Your task to perform on an android device: toggle notification dots Image 0: 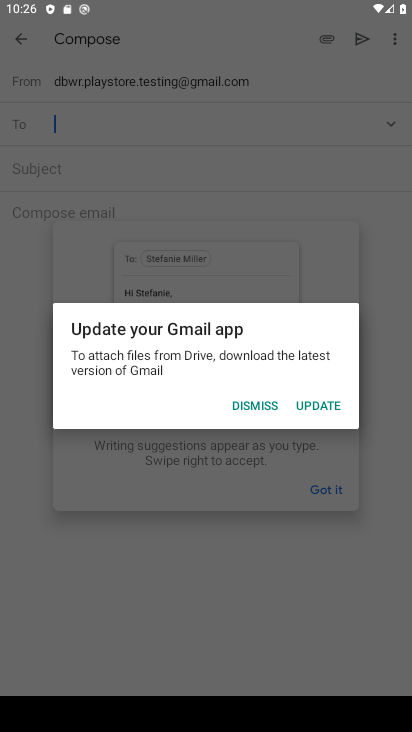
Step 0: press home button
Your task to perform on an android device: toggle notification dots Image 1: 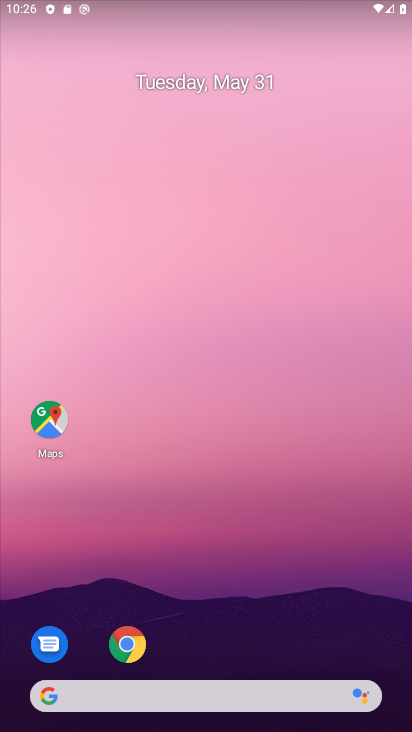
Step 1: drag from (242, 642) to (271, 87)
Your task to perform on an android device: toggle notification dots Image 2: 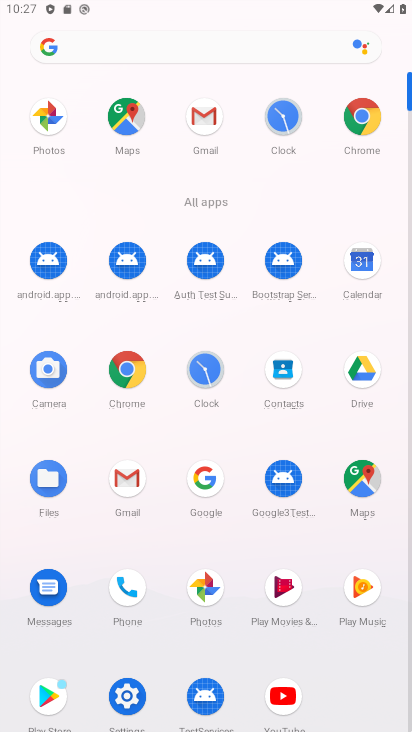
Step 2: click (129, 701)
Your task to perform on an android device: toggle notification dots Image 3: 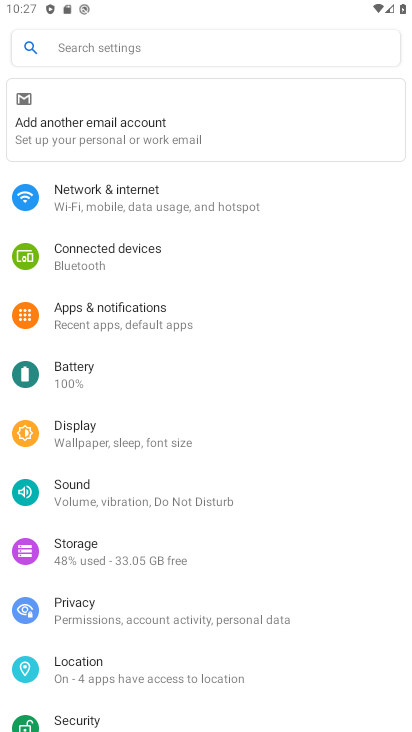
Step 3: click (145, 673)
Your task to perform on an android device: toggle notification dots Image 4: 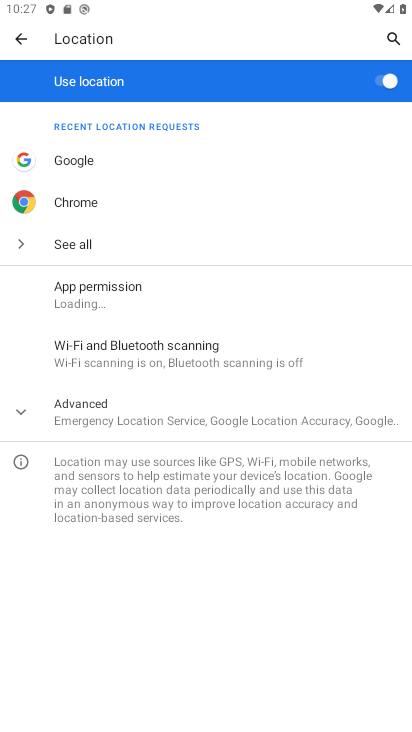
Step 4: click (27, 39)
Your task to perform on an android device: toggle notification dots Image 5: 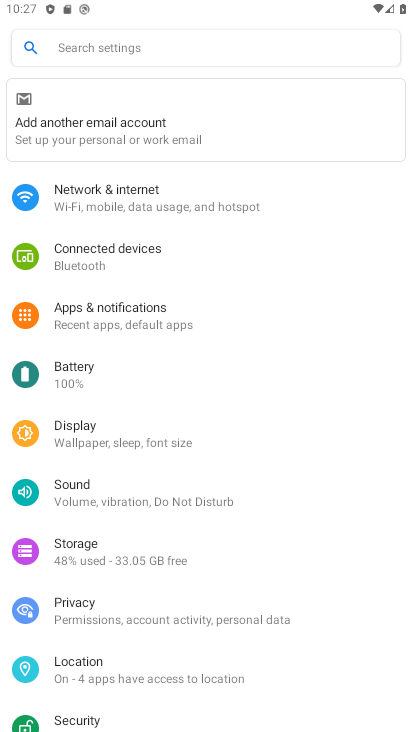
Step 5: click (140, 319)
Your task to perform on an android device: toggle notification dots Image 6: 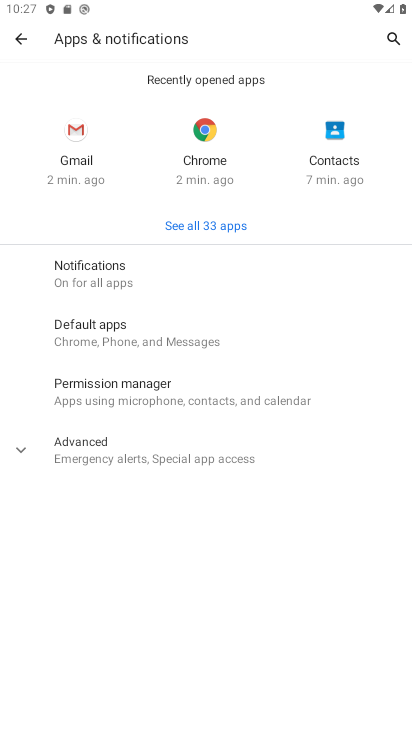
Step 6: click (119, 276)
Your task to perform on an android device: toggle notification dots Image 7: 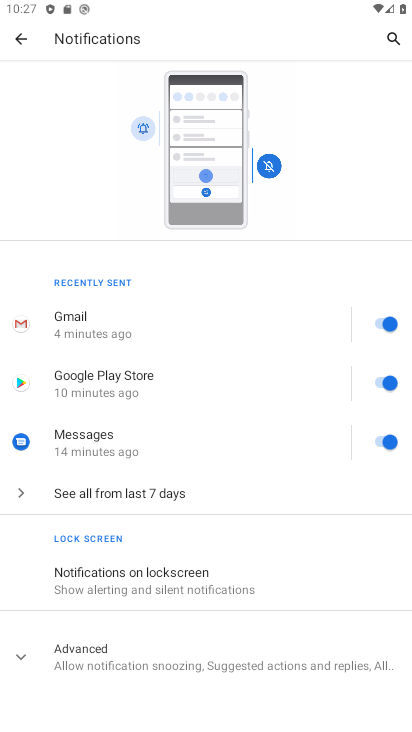
Step 7: click (18, 659)
Your task to perform on an android device: toggle notification dots Image 8: 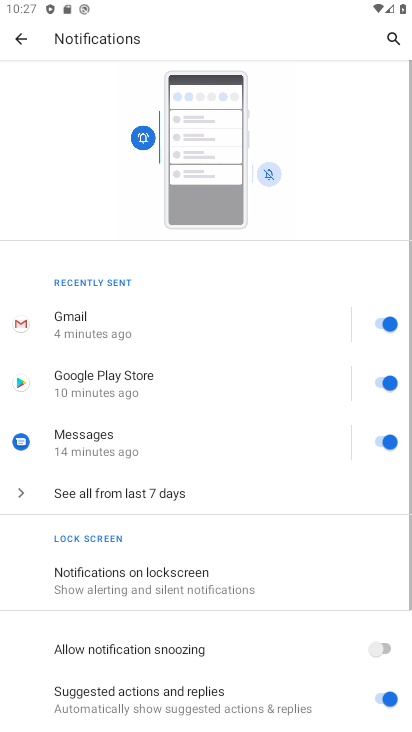
Step 8: drag from (295, 625) to (294, 290)
Your task to perform on an android device: toggle notification dots Image 9: 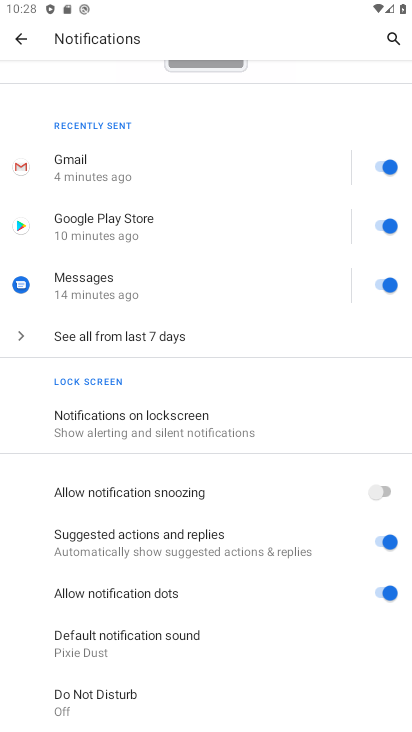
Step 9: click (382, 590)
Your task to perform on an android device: toggle notification dots Image 10: 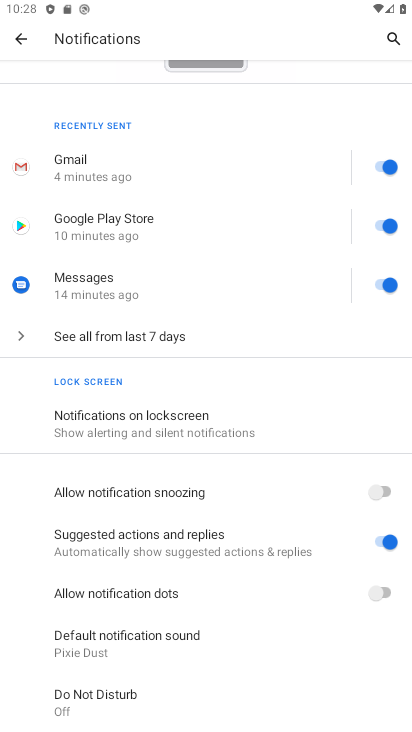
Step 10: task complete